Your task to perform on an android device: change your default location settings in chrome Image 0: 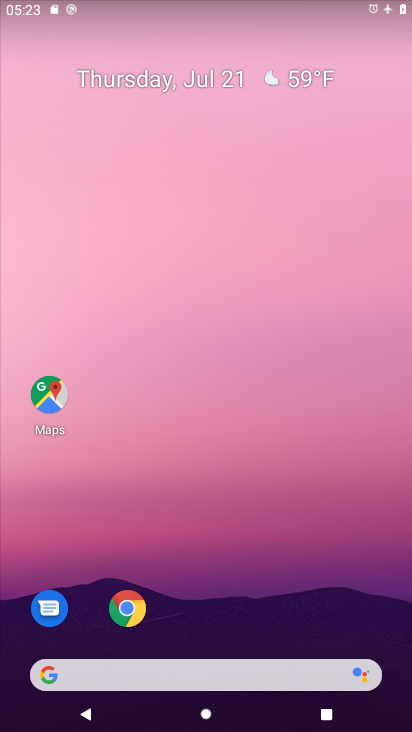
Step 0: drag from (292, 668) to (276, 164)
Your task to perform on an android device: change your default location settings in chrome Image 1: 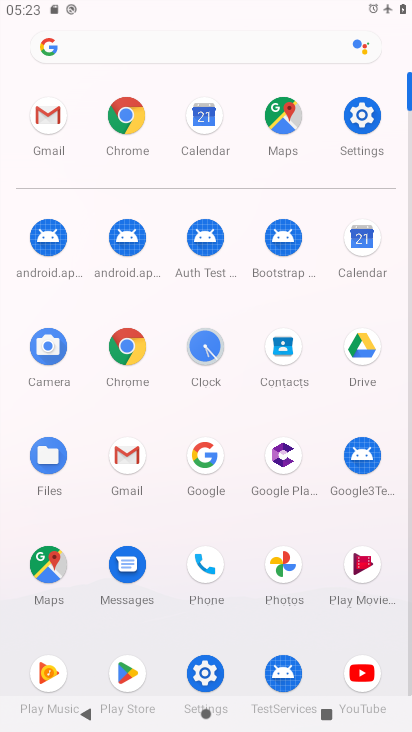
Step 1: click (355, 113)
Your task to perform on an android device: change your default location settings in chrome Image 2: 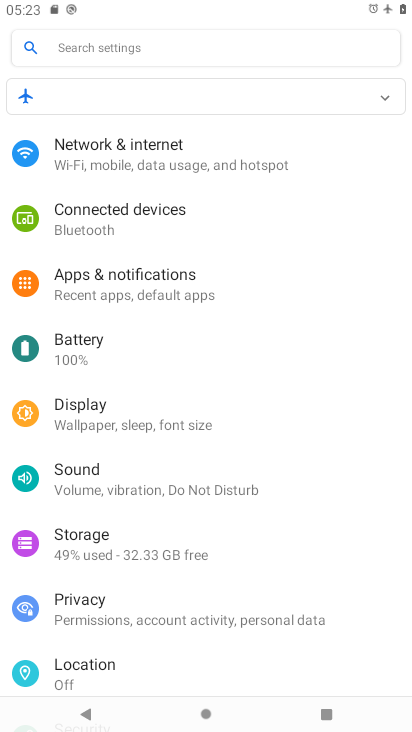
Step 2: press home button
Your task to perform on an android device: change your default location settings in chrome Image 3: 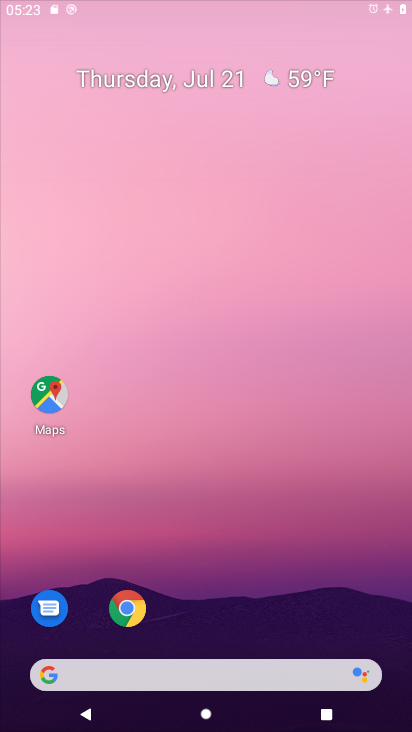
Step 3: drag from (175, 662) to (239, 113)
Your task to perform on an android device: change your default location settings in chrome Image 4: 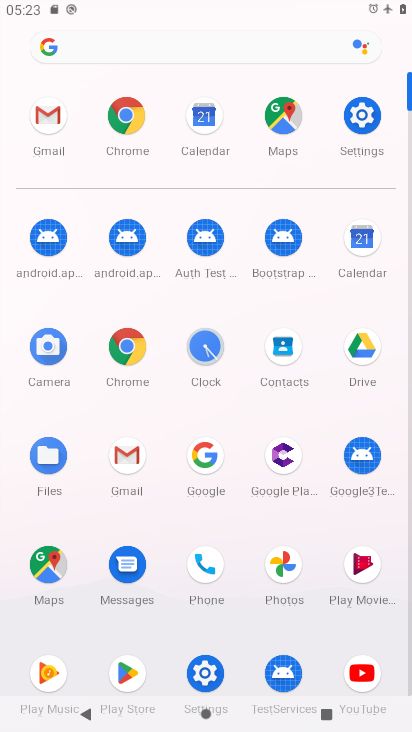
Step 4: click (139, 347)
Your task to perform on an android device: change your default location settings in chrome Image 5: 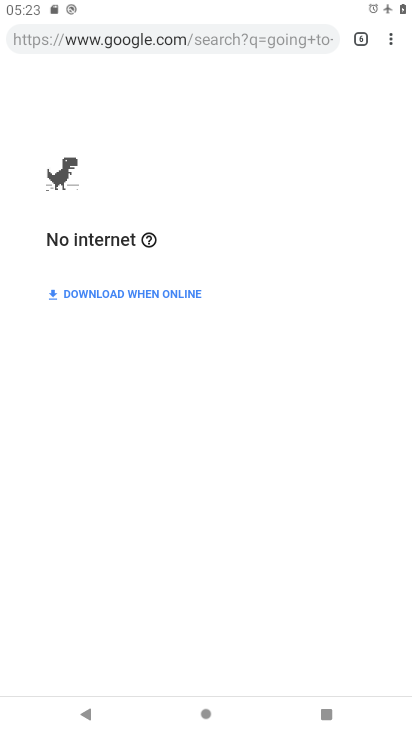
Step 5: drag from (392, 37) to (271, 432)
Your task to perform on an android device: change your default location settings in chrome Image 6: 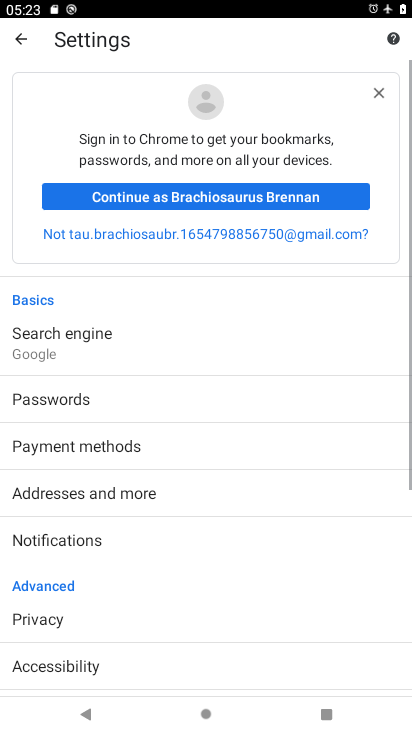
Step 6: drag from (149, 619) to (197, 293)
Your task to perform on an android device: change your default location settings in chrome Image 7: 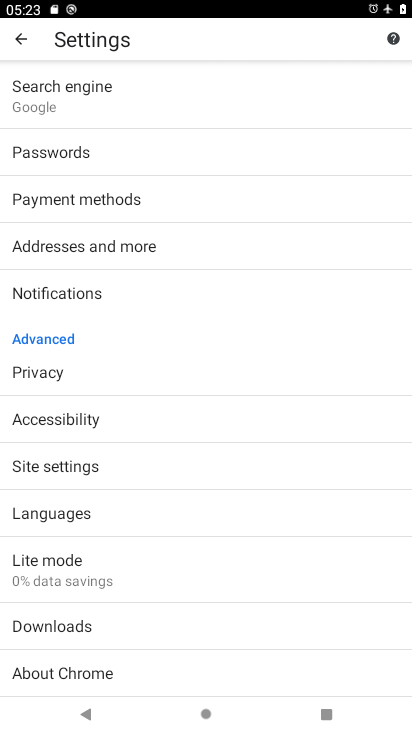
Step 7: click (73, 456)
Your task to perform on an android device: change your default location settings in chrome Image 8: 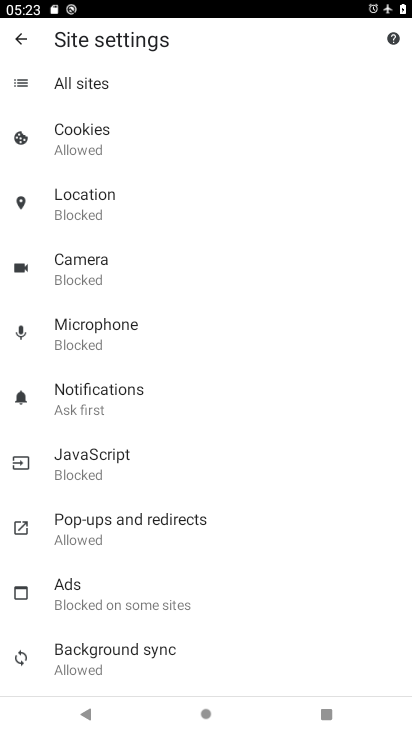
Step 8: click (121, 216)
Your task to perform on an android device: change your default location settings in chrome Image 9: 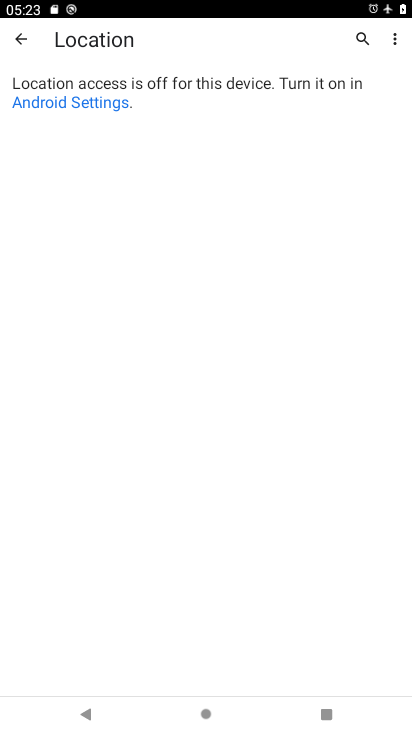
Step 9: task complete